Your task to perform on an android device: turn notification dots on Image 0: 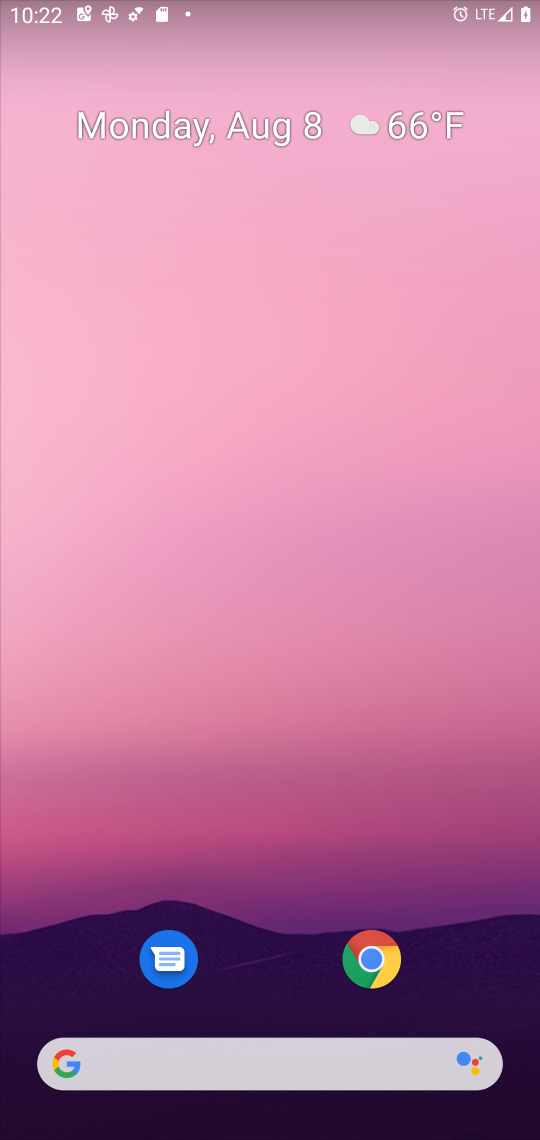
Step 0: drag from (491, 989) to (301, 72)
Your task to perform on an android device: turn notification dots on Image 1: 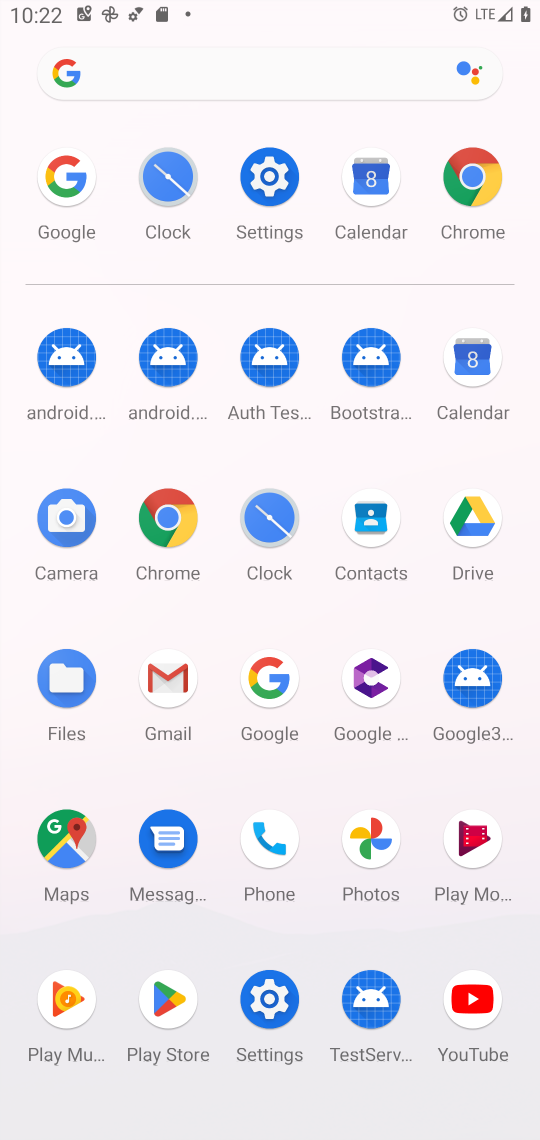
Step 1: click (227, 973)
Your task to perform on an android device: turn notification dots on Image 2: 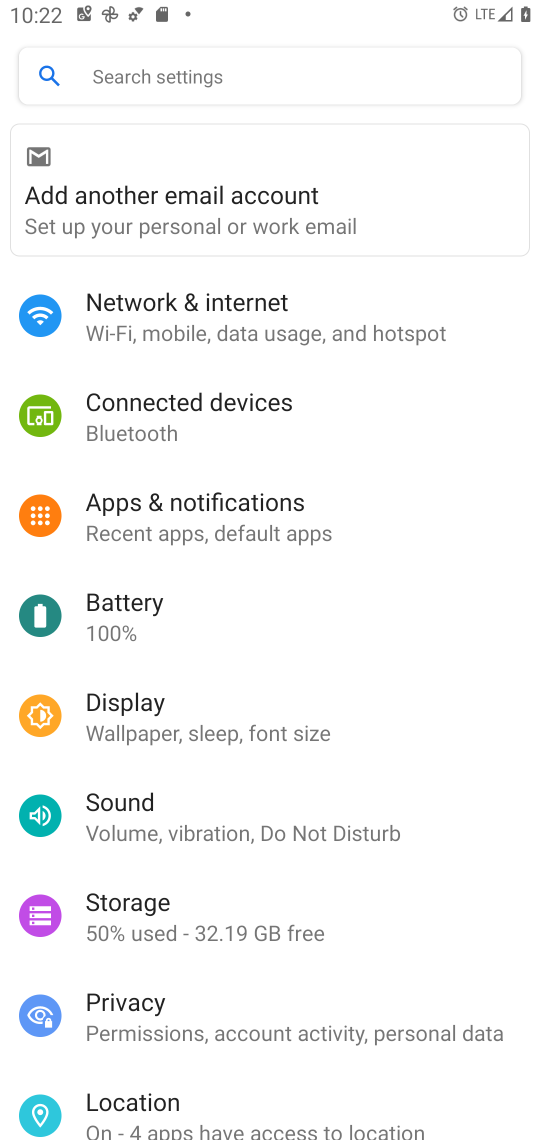
Step 2: click (229, 516)
Your task to perform on an android device: turn notification dots on Image 3: 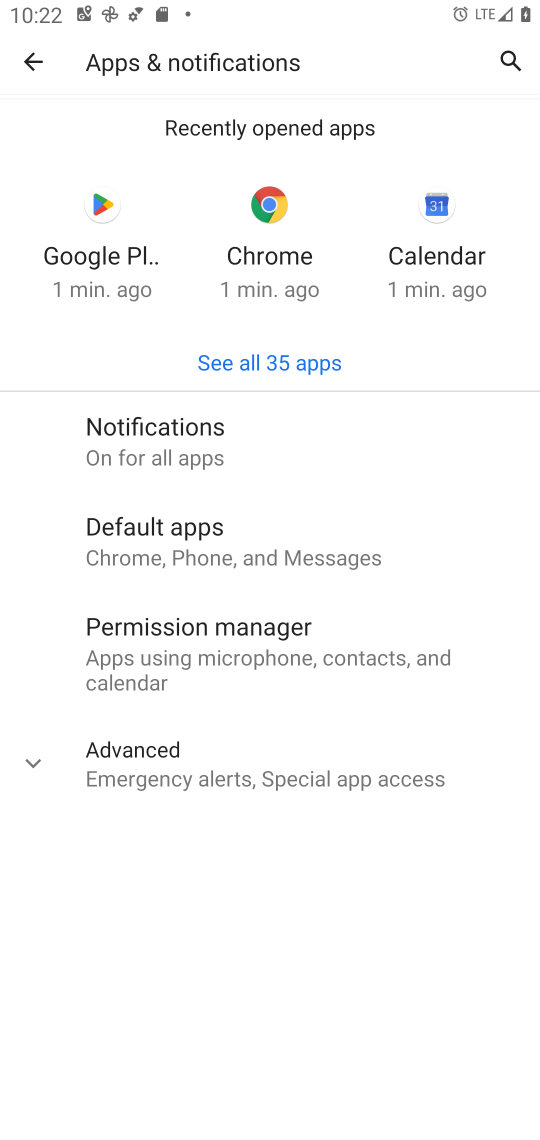
Step 3: click (153, 424)
Your task to perform on an android device: turn notification dots on Image 4: 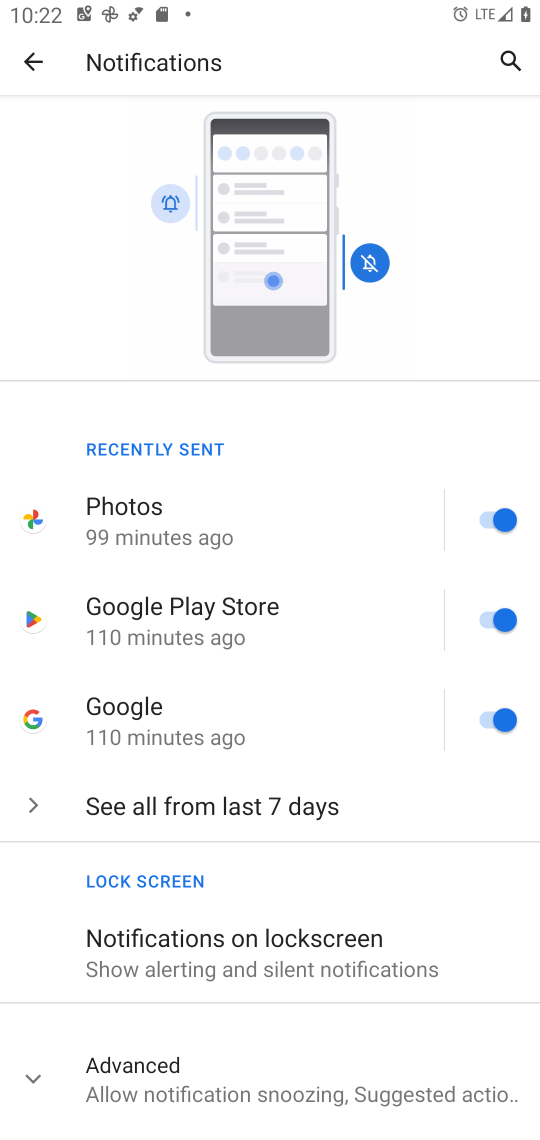
Step 4: click (155, 1081)
Your task to perform on an android device: turn notification dots on Image 5: 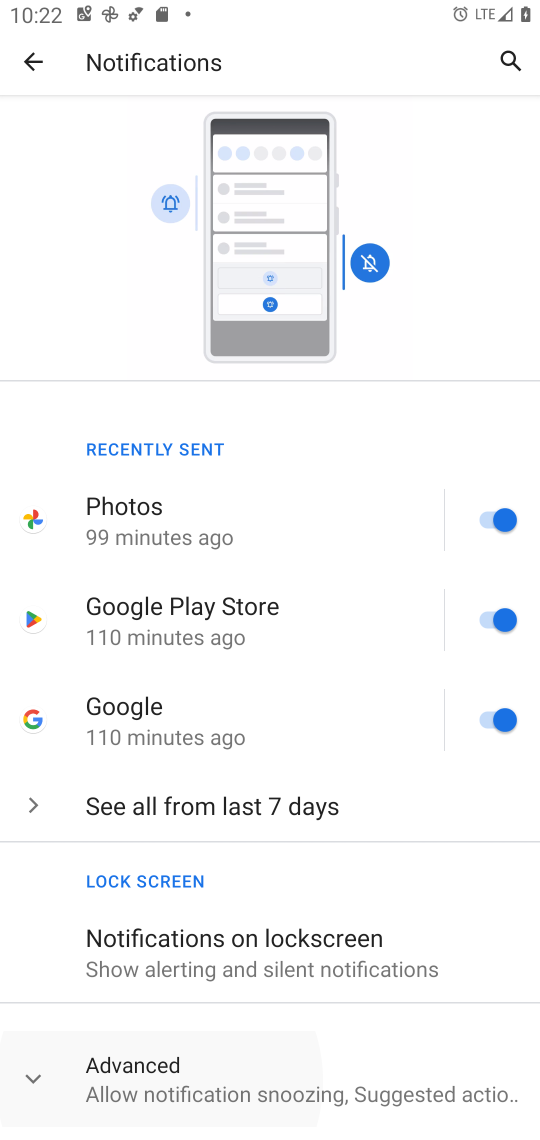
Step 5: task complete